Your task to perform on an android device: Add alienware area 51 to the cart on newegg.com, then select checkout. Image 0: 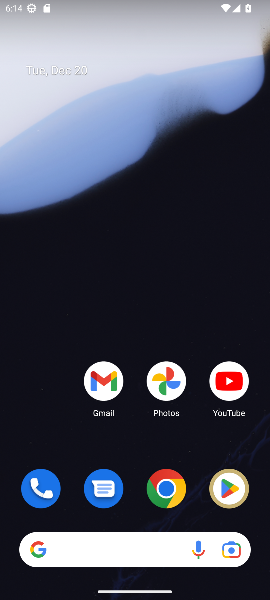
Step 0: press home button
Your task to perform on an android device: Add alienware area 51 to the cart on newegg.com, then select checkout. Image 1: 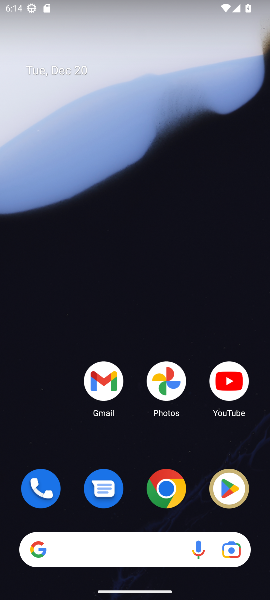
Step 1: click (53, 552)
Your task to perform on an android device: Add alienware area 51 to the cart on newegg.com, then select checkout. Image 2: 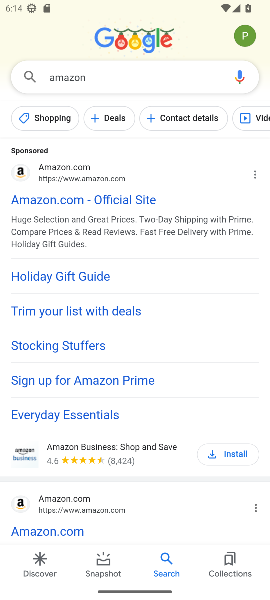
Step 2: click (107, 78)
Your task to perform on an android device: Add alienware area 51 to the cart on newegg.com, then select checkout. Image 3: 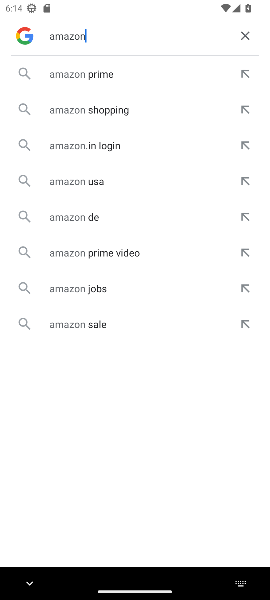
Step 3: click (241, 38)
Your task to perform on an android device: Add alienware area 51 to the cart on newegg.com, then select checkout. Image 4: 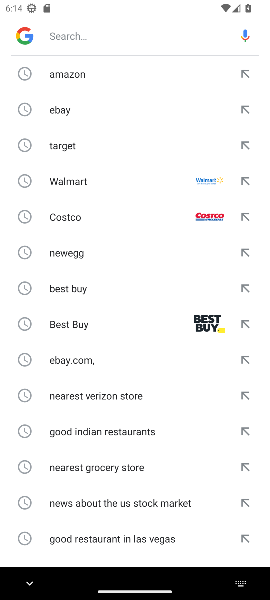
Step 4: press enter
Your task to perform on an android device: Add alienware area 51 to the cart on newegg.com, then select checkout. Image 5: 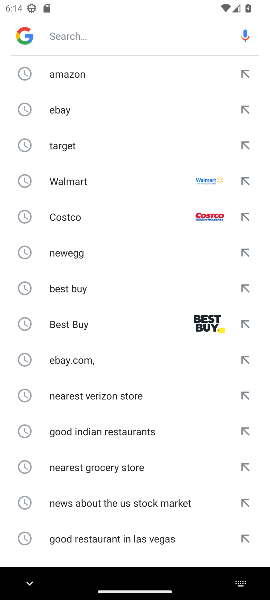
Step 5: type "newegg.com"
Your task to perform on an android device: Add alienware area 51 to the cart on newegg.com, then select checkout. Image 6: 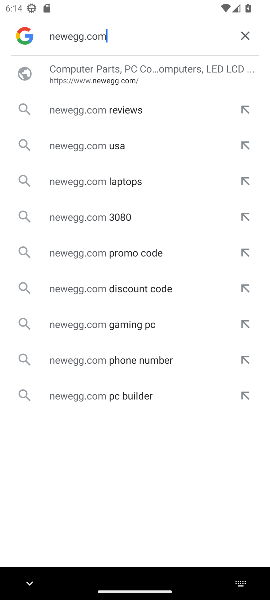
Step 6: press enter
Your task to perform on an android device: Add alienware area 51 to the cart on newegg.com, then select checkout. Image 7: 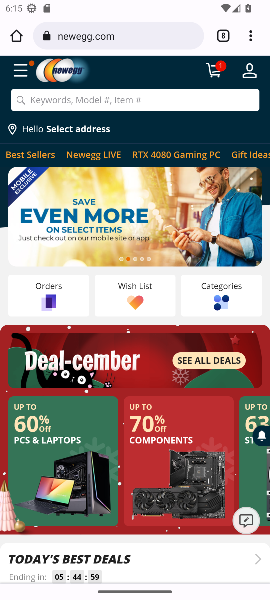
Step 7: click (108, 100)
Your task to perform on an android device: Add alienware area 51 to the cart on newegg.com, then select checkout. Image 8: 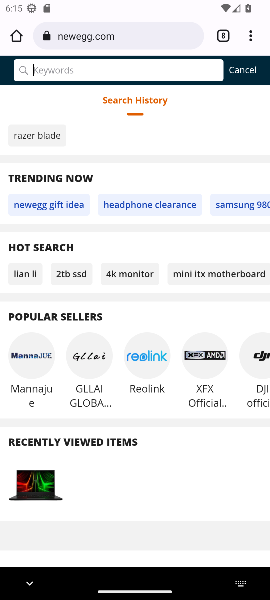
Step 8: type "alienware area 51"
Your task to perform on an android device: Add alienware area 51 to the cart on newegg.com, then select checkout. Image 9: 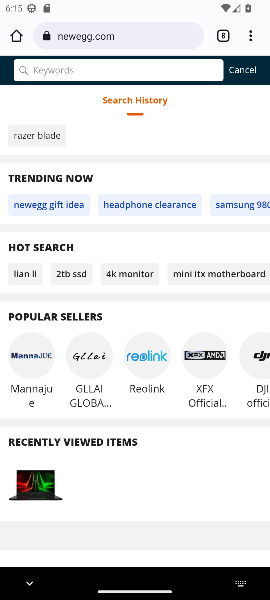
Step 9: press enter
Your task to perform on an android device: Add alienware area 51 to the cart on newegg.com, then select checkout. Image 10: 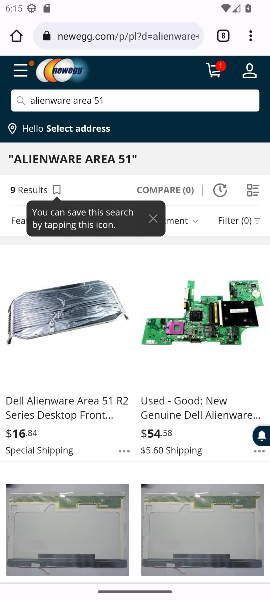
Step 10: click (31, 412)
Your task to perform on an android device: Add alienware area 51 to the cart on newegg.com, then select checkout. Image 11: 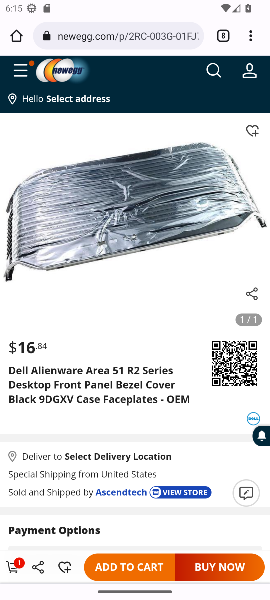
Step 11: click (116, 566)
Your task to perform on an android device: Add alienware area 51 to the cart on newegg.com, then select checkout. Image 12: 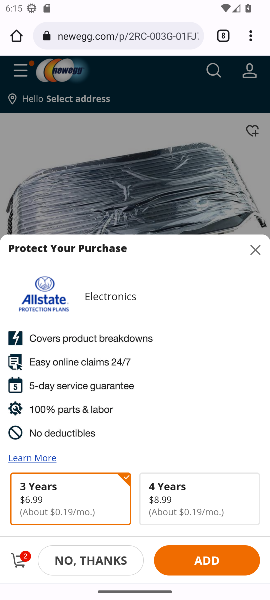
Step 12: click (76, 565)
Your task to perform on an android device: Add alienware area 51 to the cart on newegg.com, then select checkout. Image 13: 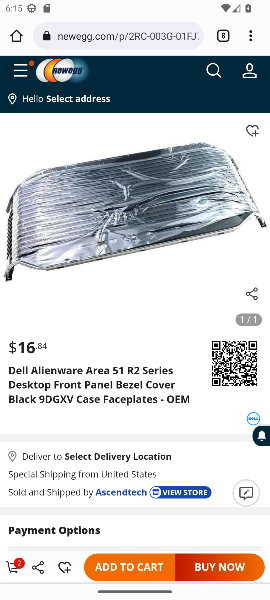
Step 13: click (9, 563)
Your task to perform on an android device: Add alienware area 51 to the cart on newegg.com, then select checkout. Image 14: 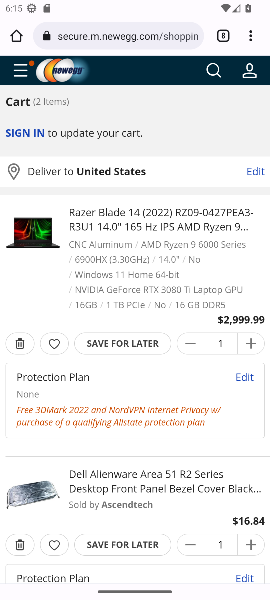
Step 14: drag from (153, 508) to (150, 238)
Your task to perform on an android device: Add alienware area 51 to the cart on newegg.com, then select checkout. Image 15: 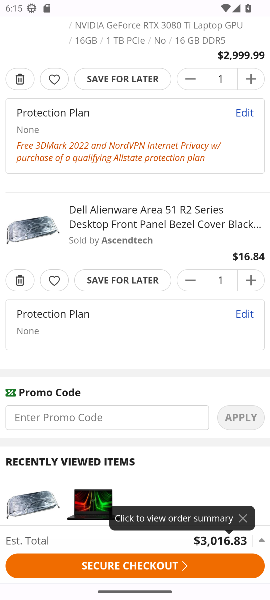
Step 15: click (146, 569)
Your task to perform on an android device: Add alienware area 51 to the cart on newegg.com, then select checkout. Image 16: 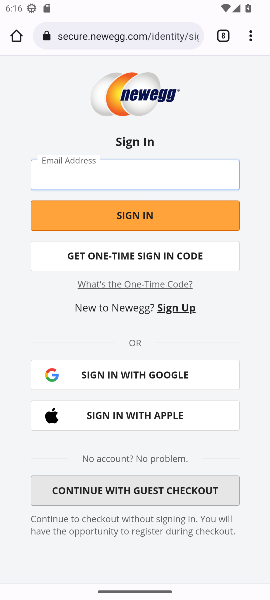
Step 16: task complete